Your task to perform on an android device: Open calendar and show me the third week of next month Image 0: 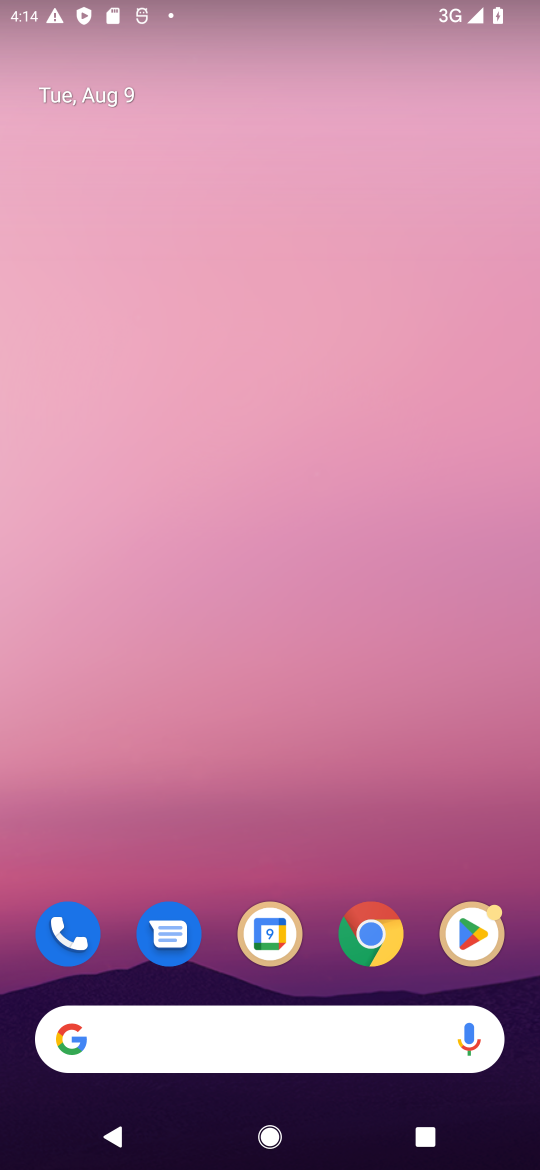
Step 0: drag from (313, 981) to (357, 119)
Your task to perform on an android device: Open calendar and show me the third week of next month Image 1: 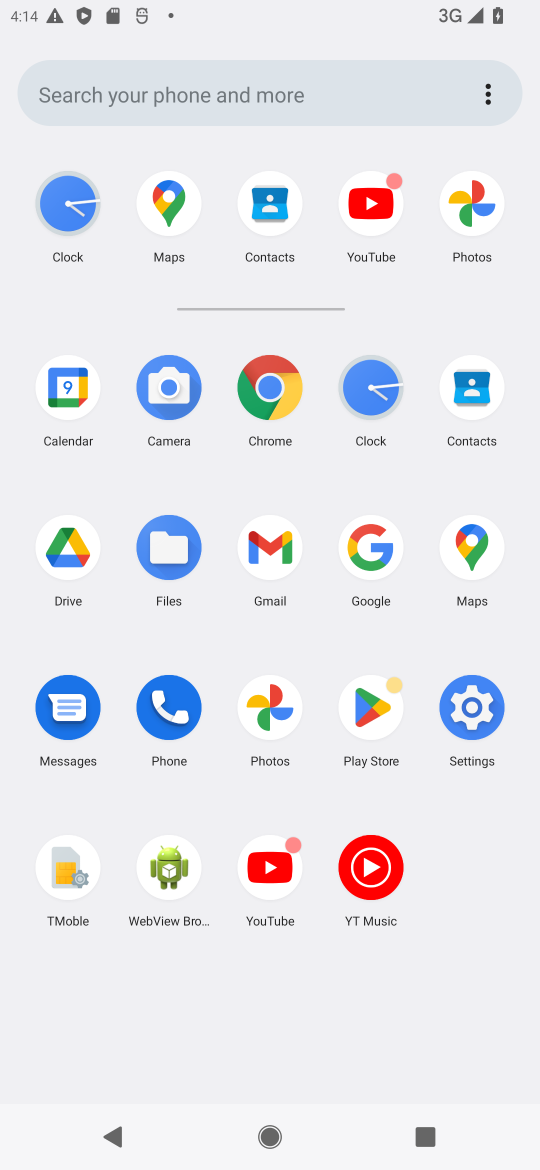
Step 1: click (58, 442)
Your task to perform on an android device: Open calendar and show me the third week of next month Image 2: 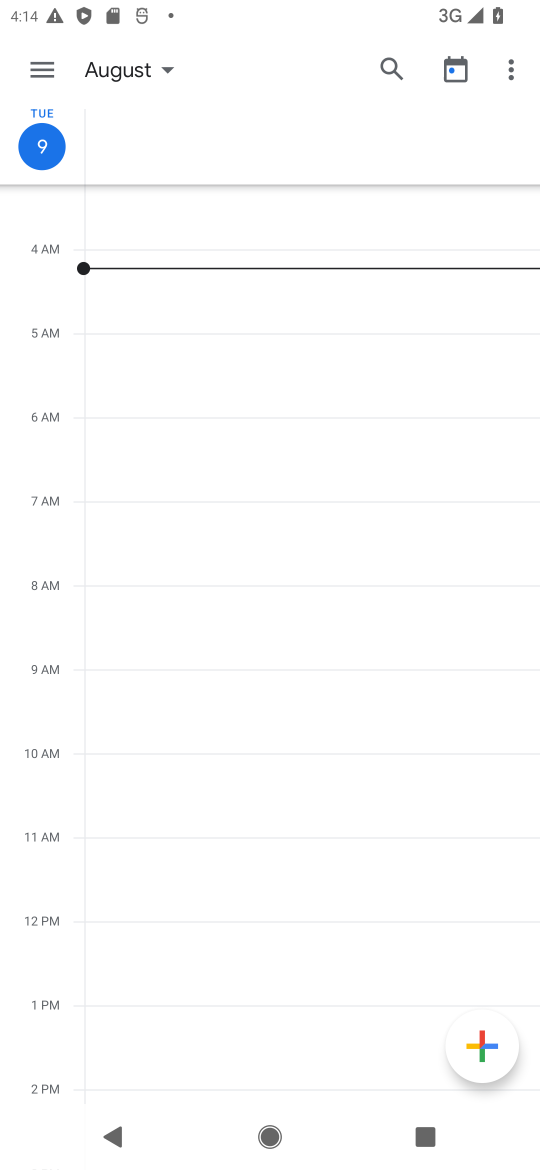
Step 2: task complete